Your task to perform on an android device: Open the map Image 0: 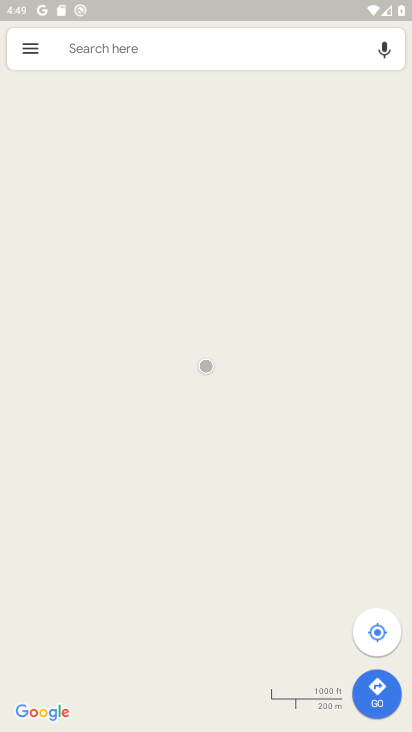
Step 0: press home button
Your task to perform on an android device: Open the map Image 1: 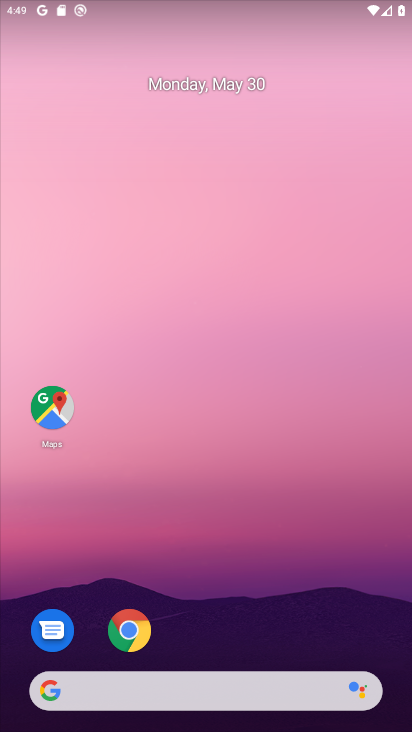
Step 1: click (52, 408)
Your task to perform on an android device: Open the map Image 2: 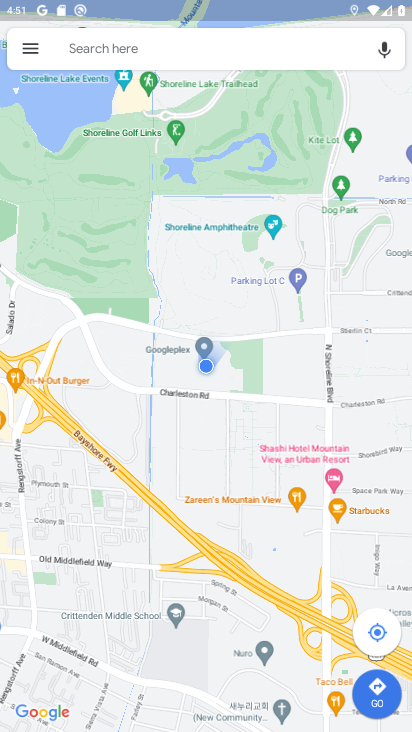
Step 2: task complete